Your task to perform on an android device: check the backup settings in the google photos Image 0: 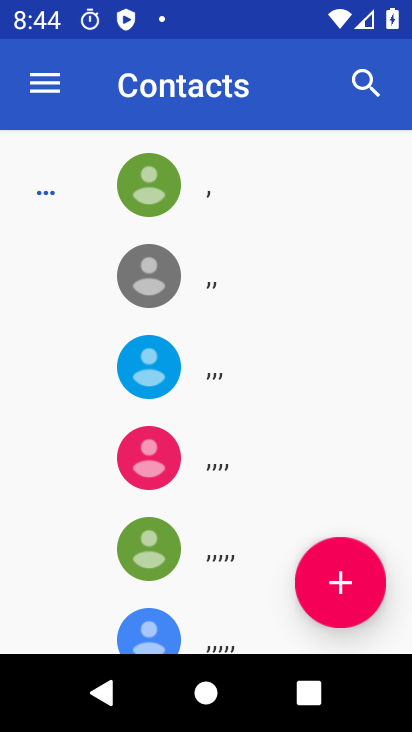
Step 0: press home button
Your task to perform on an android device: check the backup settings in the google photos Image 1: 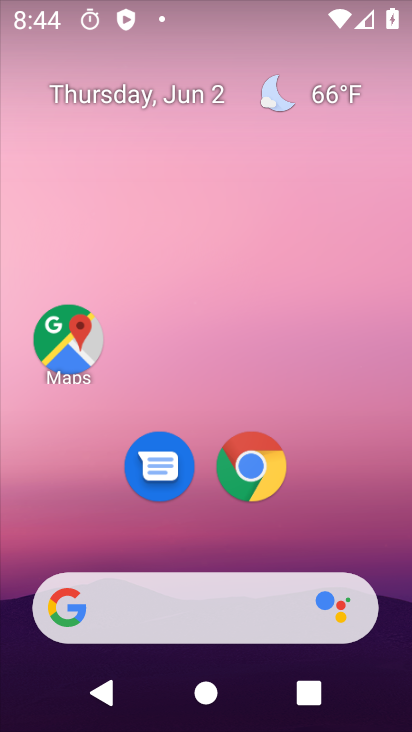
Step 1: drag from (19, 579) to (224, 144)
Your task to perform on an android device: check the backup settings in the google photos Image 2: 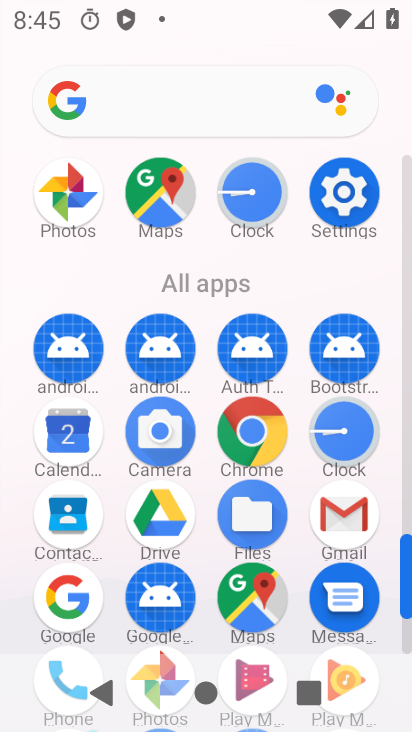
Step 2: click (57, 194)
Your task to perform on an android device: check the backup settings in the google photos Image 3: 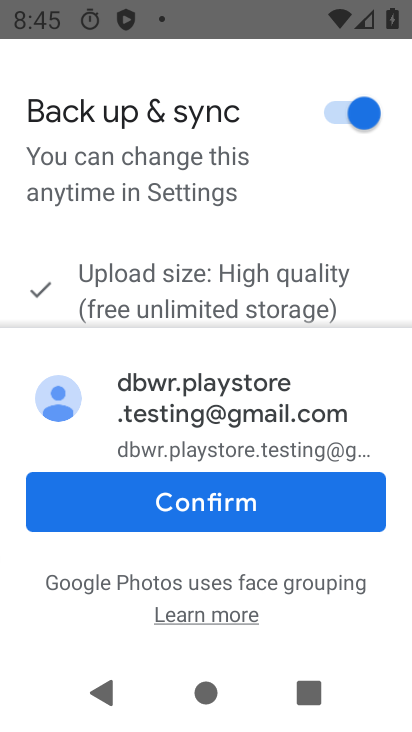
Step 3: click (130, 497)
Your task to perform on an android device: check the backup settings in the google photos Image 4: 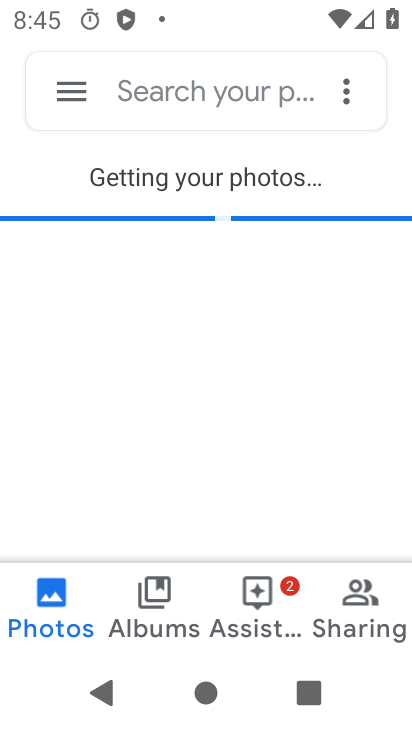
Step 4: click (350, 88)
Your task to perform on an android device: check the backup settings in the google photos Image 5: 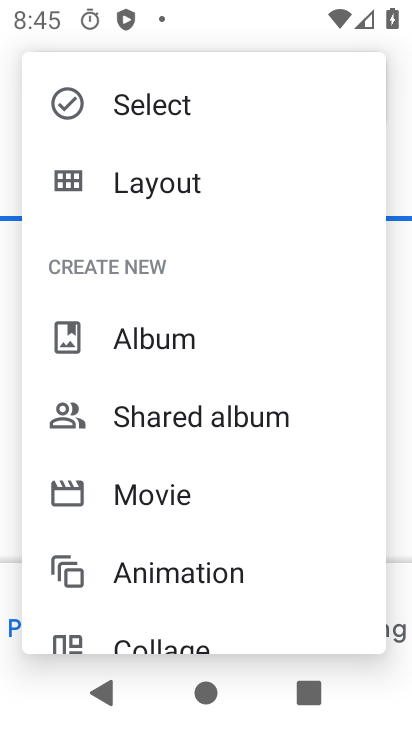
Step 5: click (407, 370)
Your task to perform on an android device: check the backup settings in the google photos Image 6: 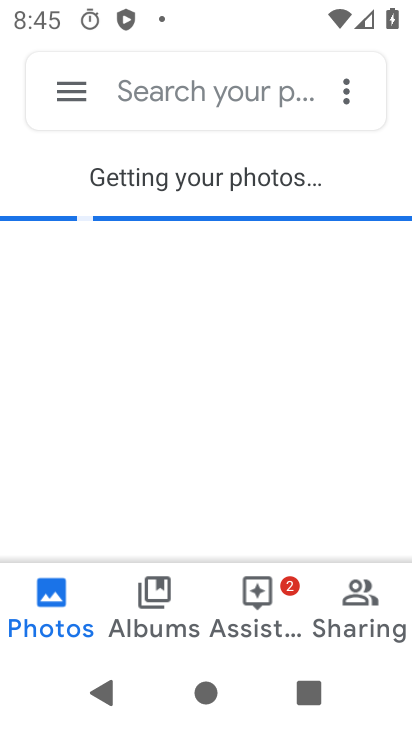
Step 6: click (59, 100)
Your task to perform on an android device: check the backup settings in the google photos Image 7: 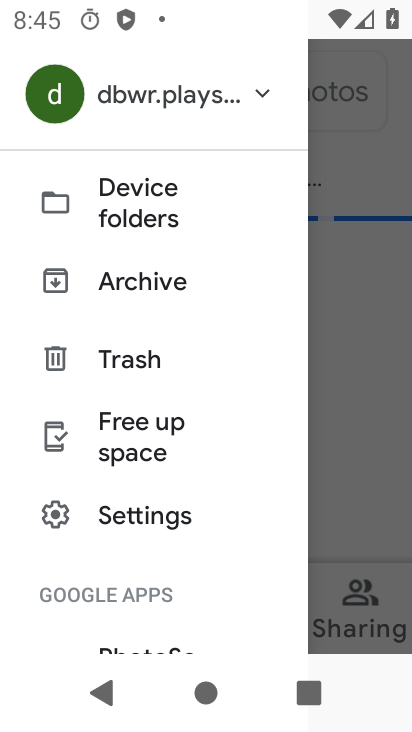
Step 7: drag from (9, 562) to (138, 93)
Your task to perform on an android device: check the backup settings in the google photos Image 8: 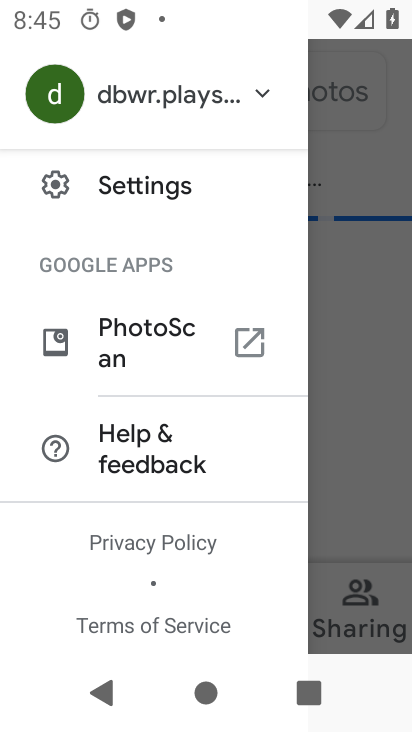
Step 8: drag from (10, 558) to (182, 159)
Your task to perform on an android device: check the backup settings in the google photos Image 9: 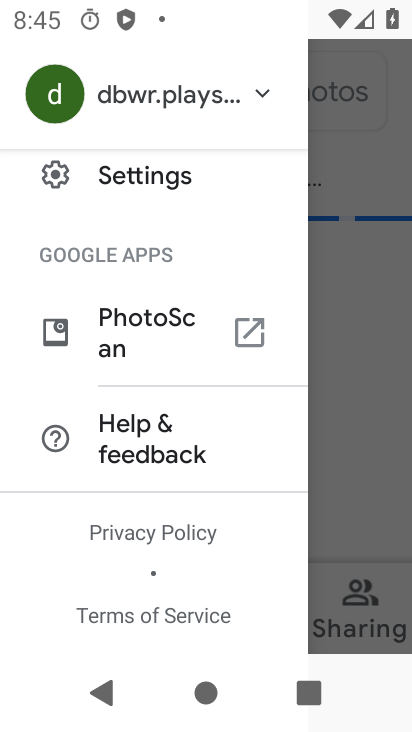
Step 9: click (172, 174)
Your task to perform on an android device: check the backup settings in the google photos Image 10: 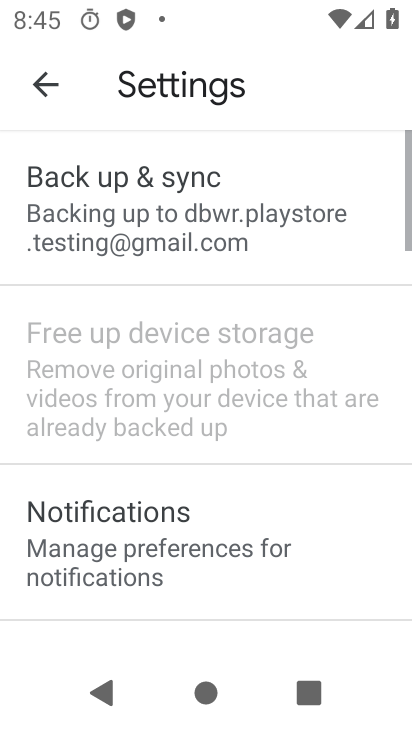
Step 10: click (175, 183)
Your task to perform on an android device: check the backup settings in the google photos Image 11: 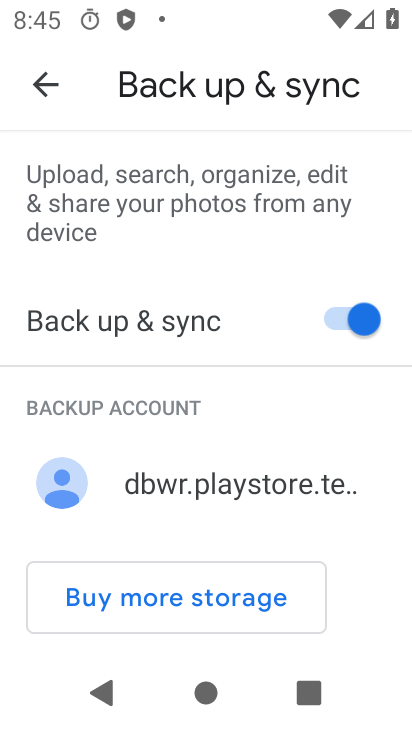
Step 11: task complete